Your task to perform on an android device: open a new tab in the chrome app Image 0: 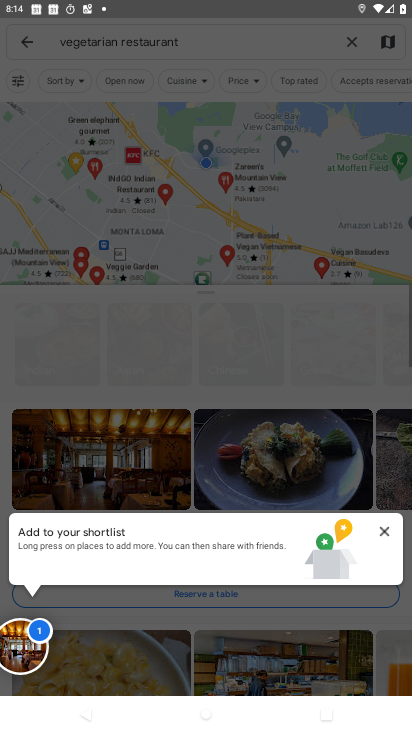
Step 0: press home button
Your task to perform on an android device: open a new tab in the chrome app Image 1: 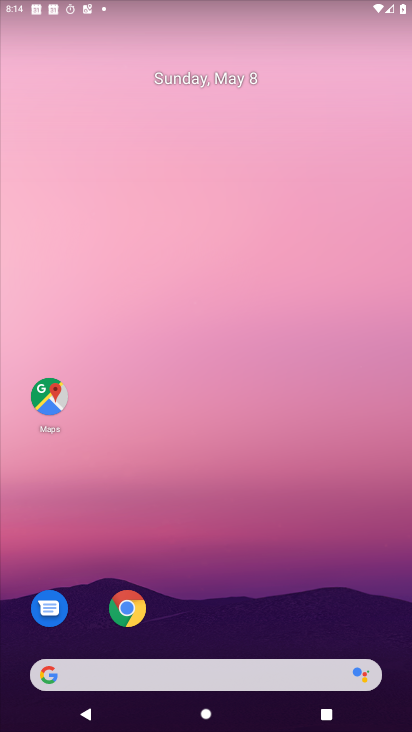
Step 1: click (109, 613)
Your task to perform on an android device: open a new tab in the chrome app Image 2: 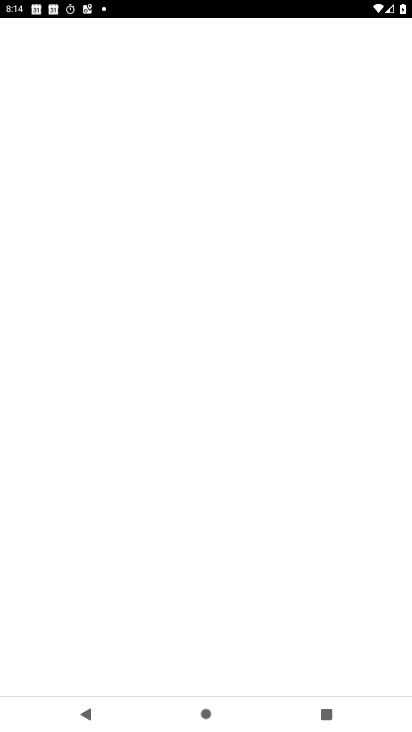
Step 2: click (126, 616)
Your task to perform on an android device: open a new tab in the chrome app Image 3: 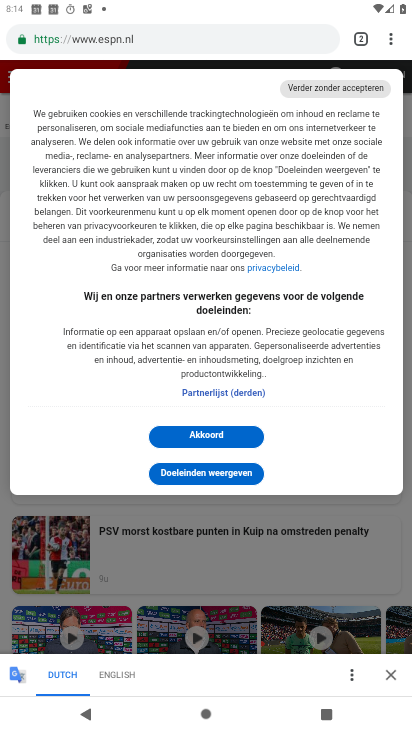
Step 3: task complete